Your task to perform on an android device: Go to sound settings Image 0: 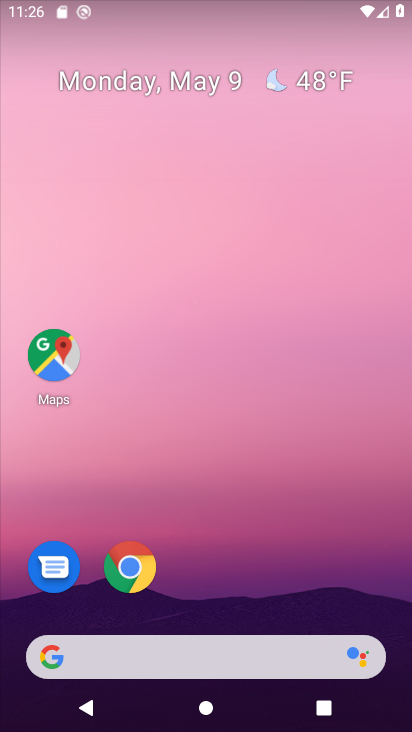
Step 0: drag from (215, 606) to (325, 17)
Your task to perform on an android device: Go to sound settings Image 1: 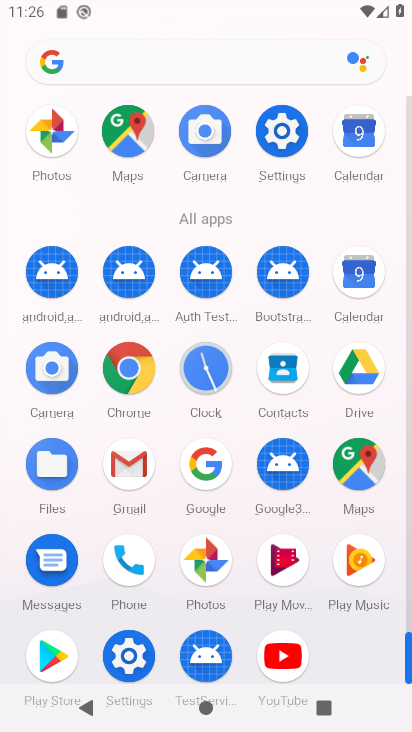
Step 1: click (283, 143)
Your task to perform on an android device: Go to sound settings Image 2: 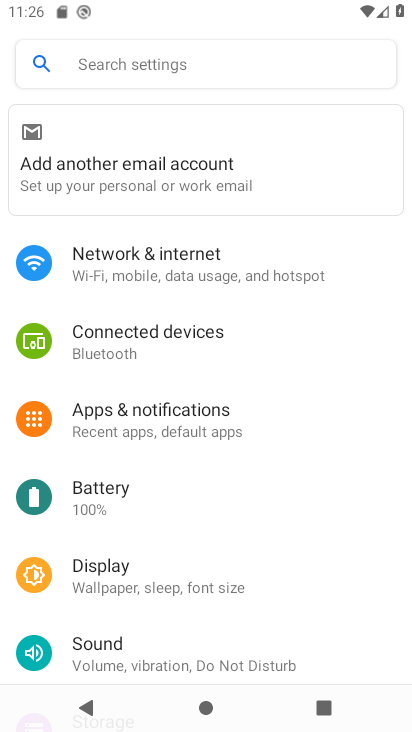
Step 2: click (183, 638)
Your task to perform on an android device: Go to sound settings Image 3: 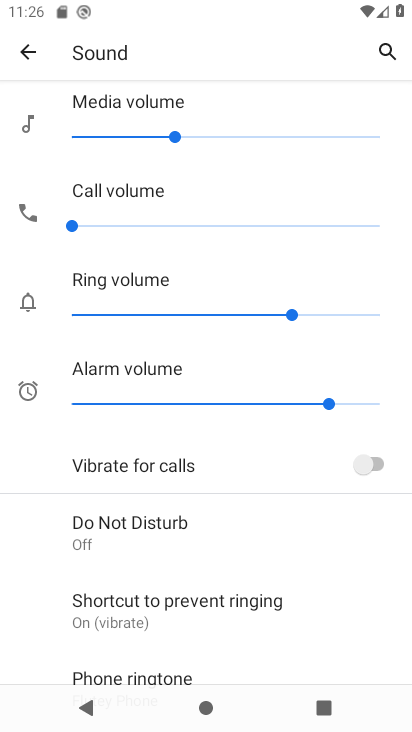
Step 3: task complete